Your task to perform on an android device: Add logitech g903 to the cart on target.com, then select checkout. Image 0: 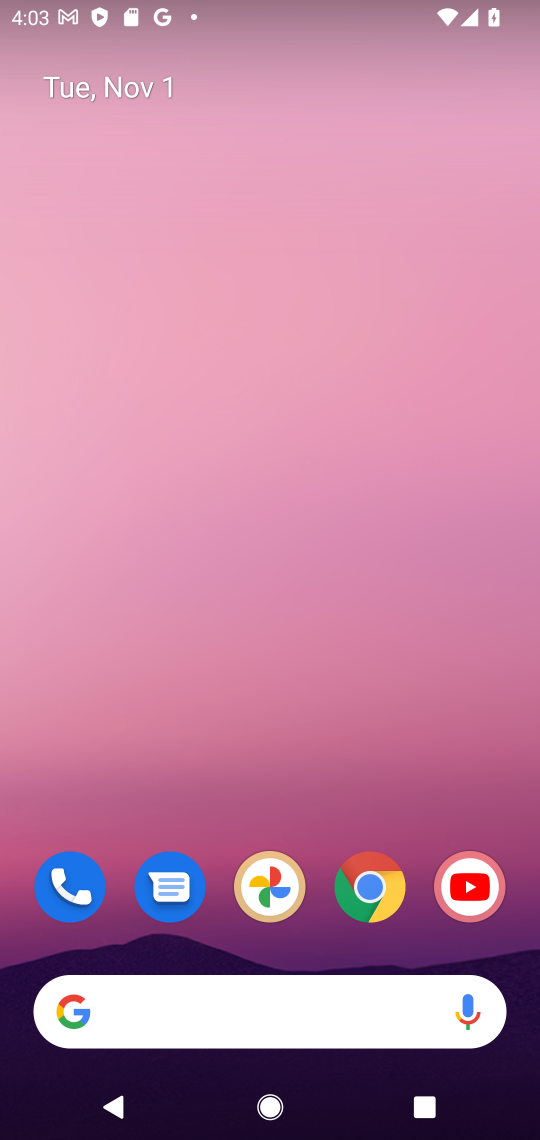
Step 0: drag from (315, 938) to (330, 106)
Your task to perform on an android device: Add logitech g903 to the cart on target.com, then select checkout. Image 1: 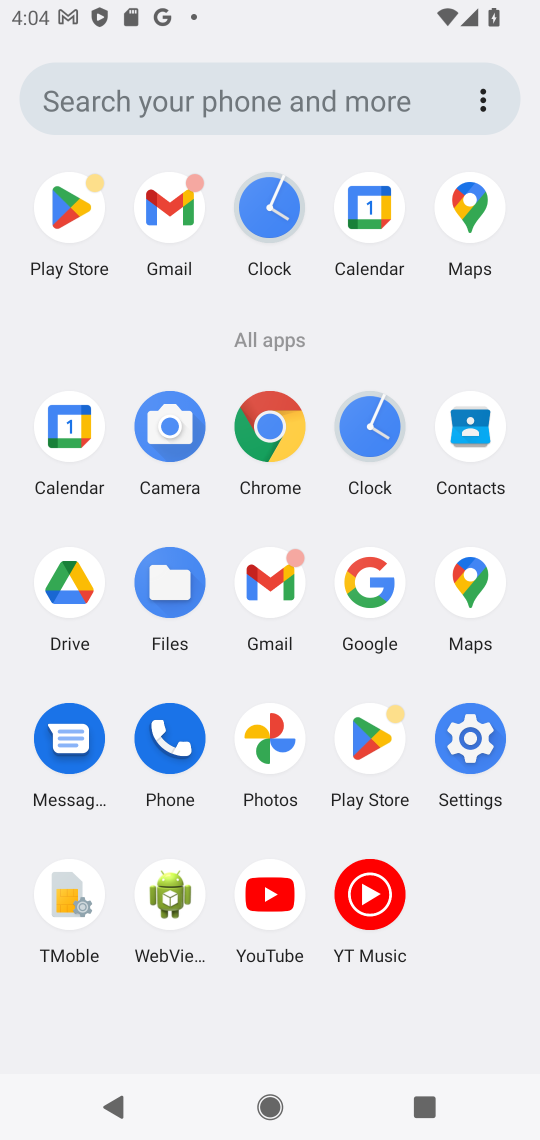
Step 1: click (271, 414)
Your task to perform on an android device: Add logitech g903 to the cart on target.com, then select checkout. Image 2: 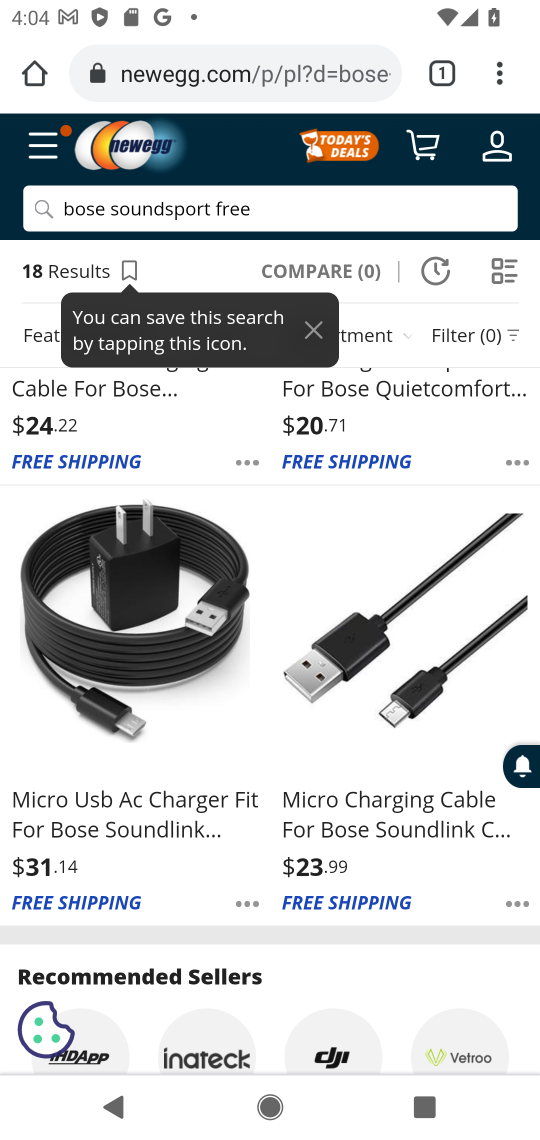
Step 2: click (231, 71)
Your task to perform on an android device: Add logitech g903 to the cart on target.com, then select checkout. Image 3: 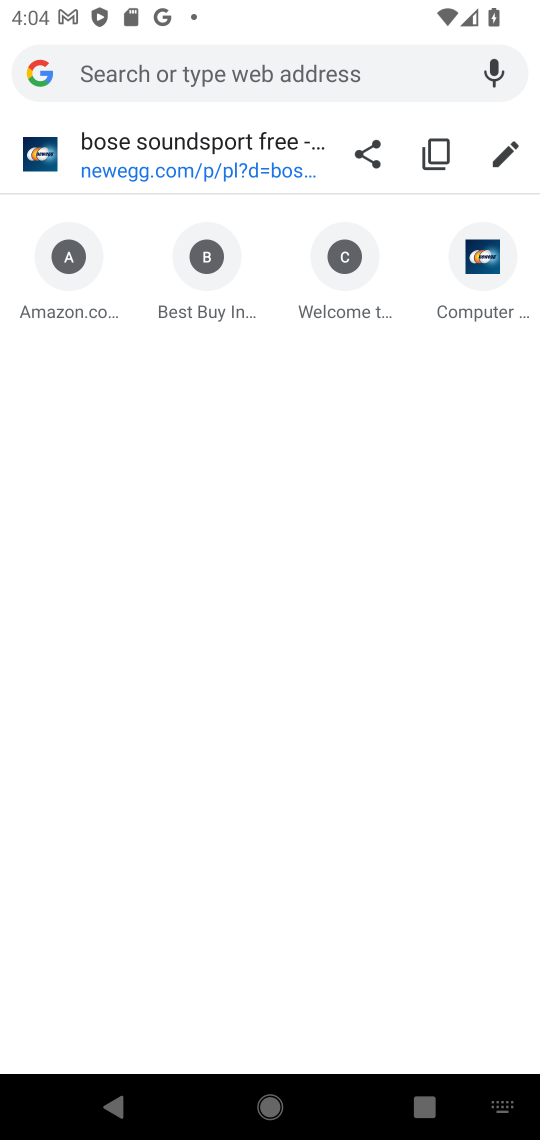
Step 3: type "target.com"
Your task to perform on an android device: Add logitech g903 to the cart on target.com, then select checkout. Image 4: 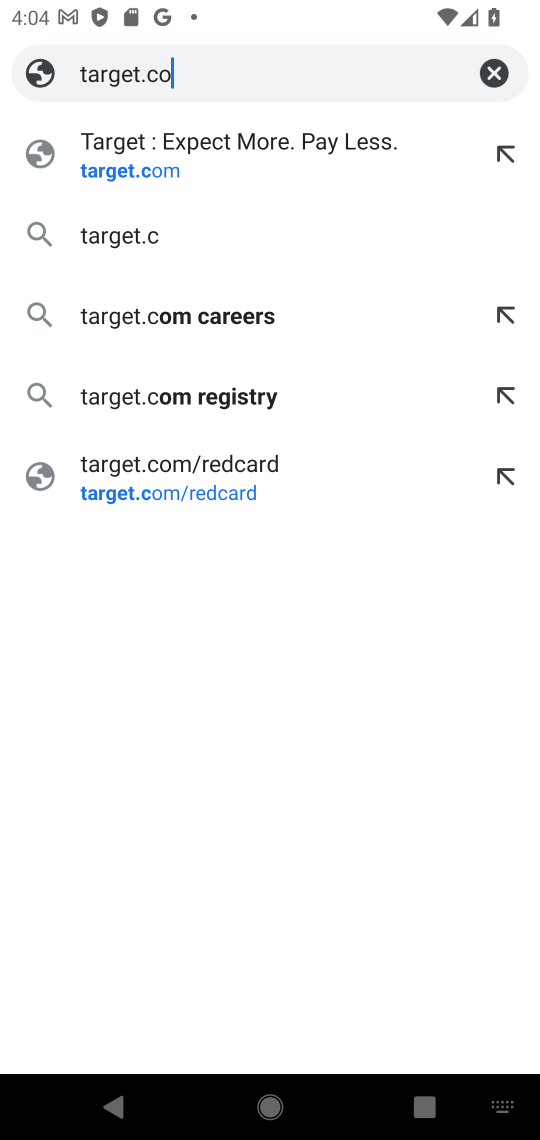
Step 4: press enter
Your task to perform on an android device: Add logitech g903 to the cart on target.com, then select checkout. Image 5: 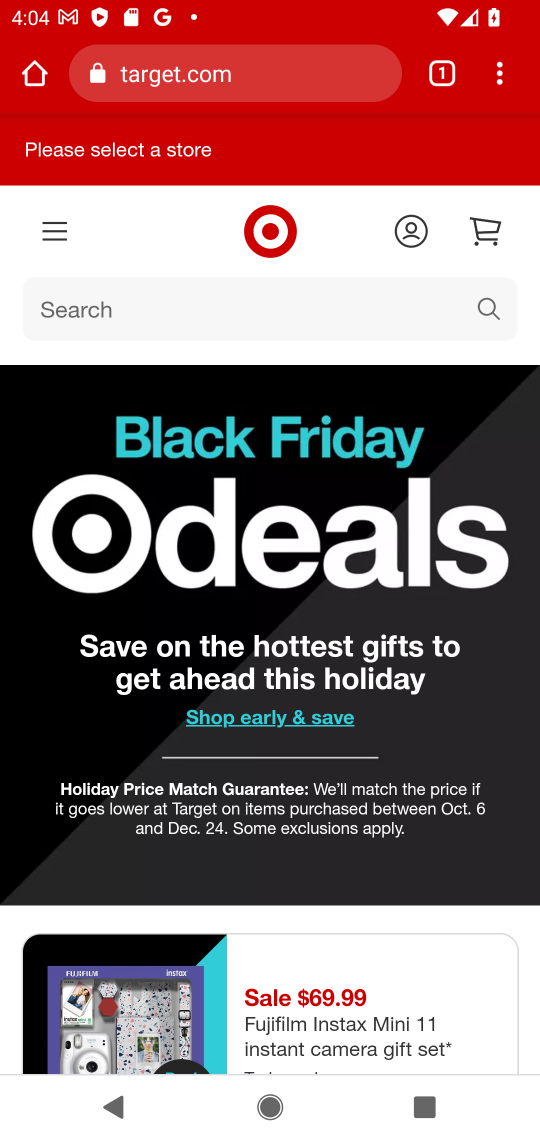
Step 5: click (178, 314)
Your task to perform on an android device: Add logitech g903 to the cart on target.com, then select checkout. Image 6: 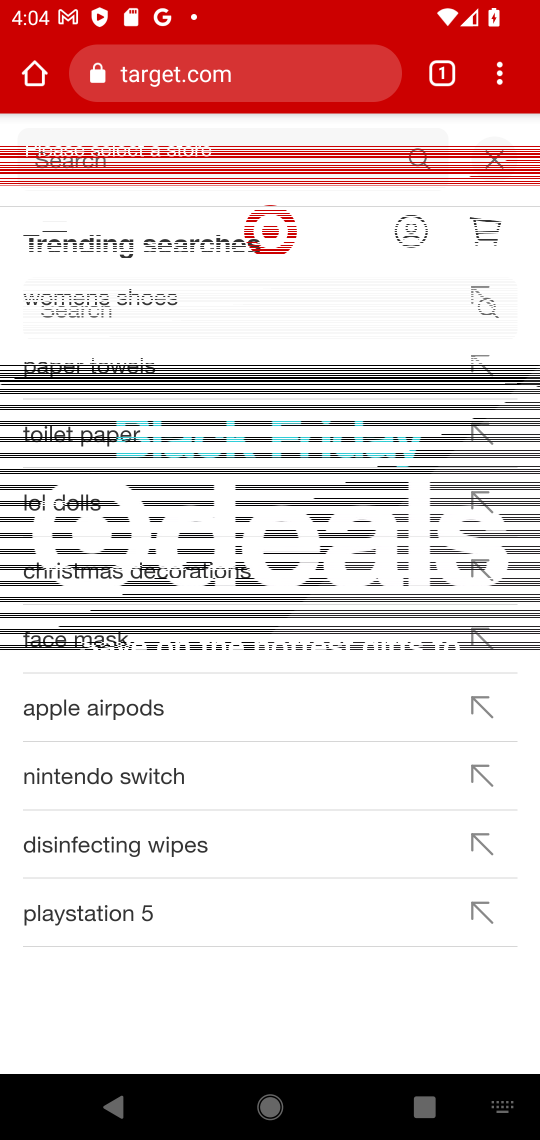
Step 6: type "logitech g903"
Your task to perform on an android device: Add logitech g903 to the cart on target.com, then select checkout. Image 7: 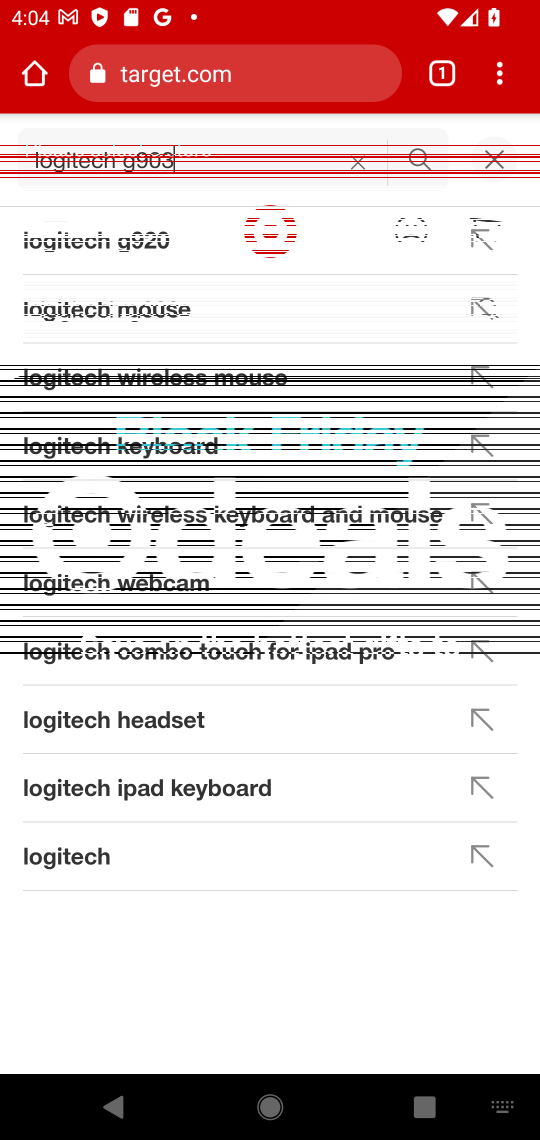
Step 7: press enter
Your task to perform on an android device: Add logitech g903 to the cart on target.com, then select checkout. Image 8: 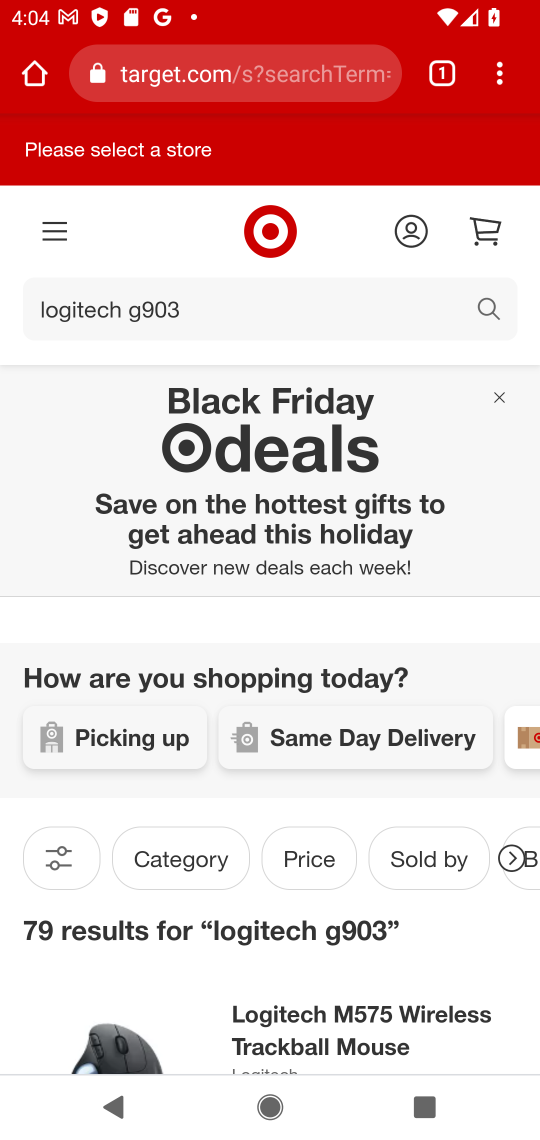
Step 8: task complete